Your task to perform on an android device: all mails in gmail Image 0: 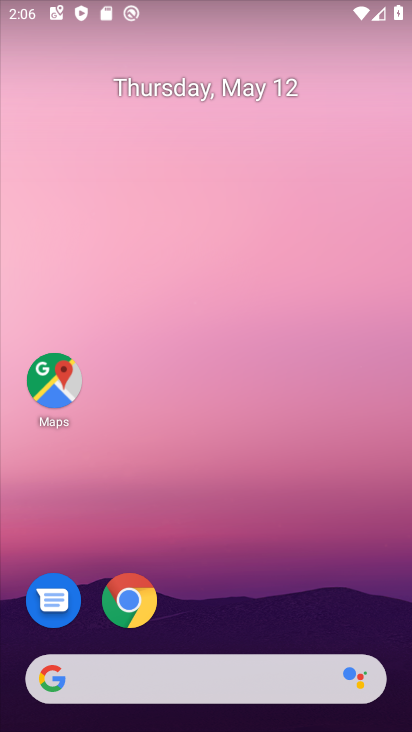
Step 0: drag from (192, 607) to (322, 19)
Your task to perform on an android device: all mails in gmail Image 1: 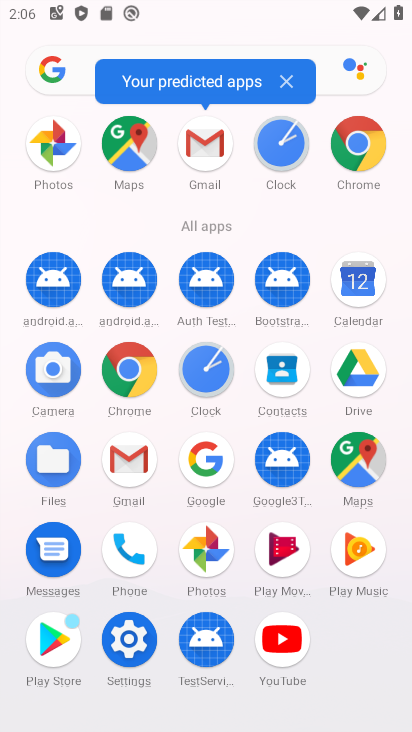
Step 1: click (112, 485)
Your task to perform on an android device: all mails in gmail Image 2: 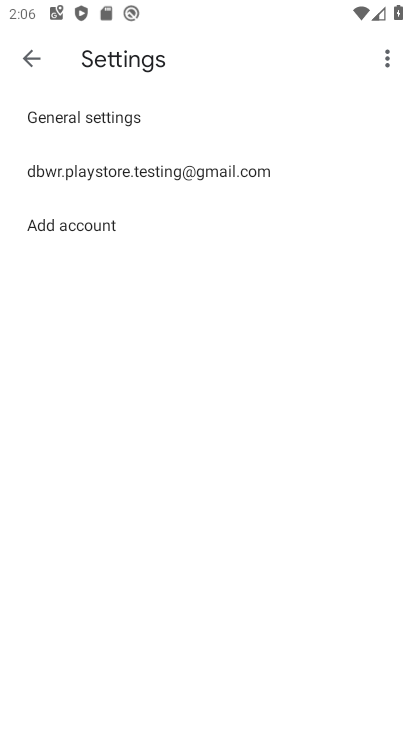
Step 2: click (43, 50)
Your task to perform on an android device: all mails in gmail Image 3: 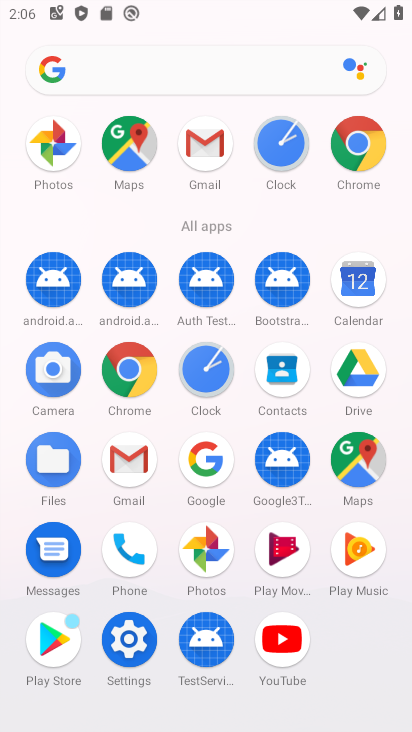
Step 3: click (136, 473)
Your task to perform on an android device: all mails in gmail Image 4: 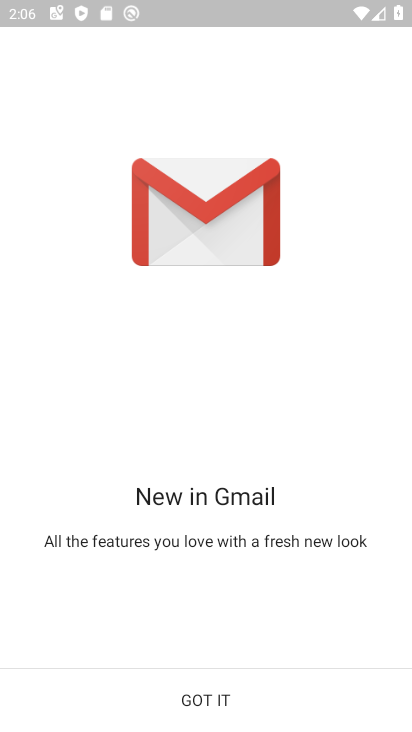
Step 4: click (215, 698)
Your task to perform on an android device: all mails in gmail Image 5: 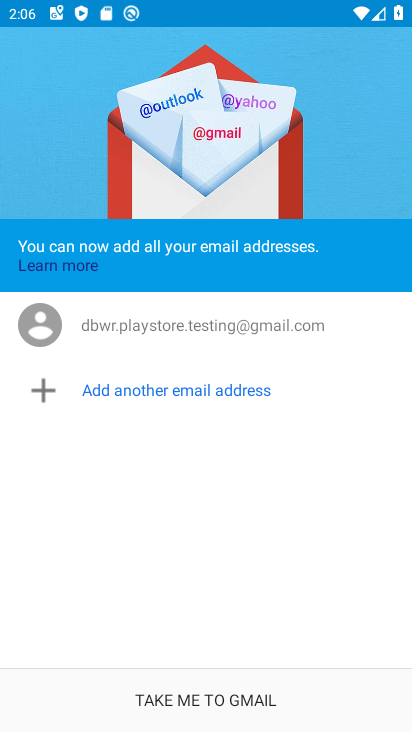
Step 5: click (206, 708)
Your task to perform on an android device: all mails in gmail Image 6: 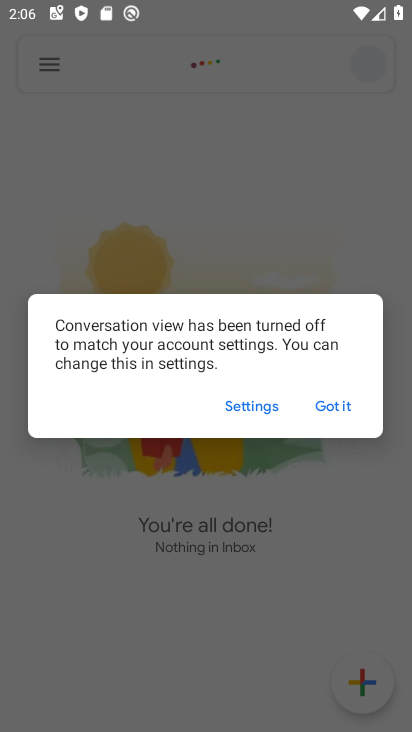
Step 6: click (322, 403)
Your task to perform on an android device: all mails in gmail Image 7: 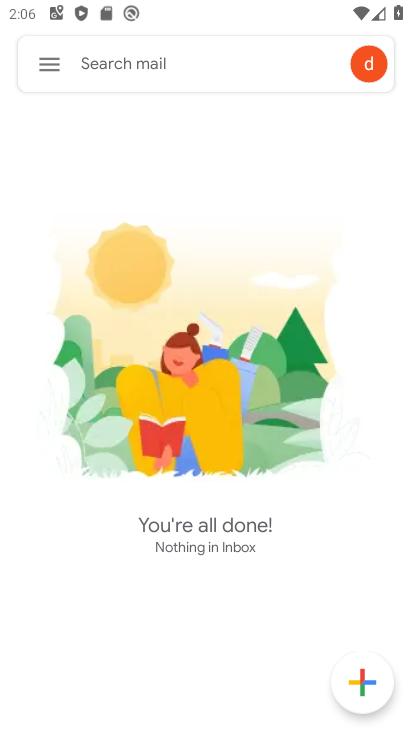
Step 7: click (49, 64)
Your task to perform on an android device: all mails in gmail Image 8: 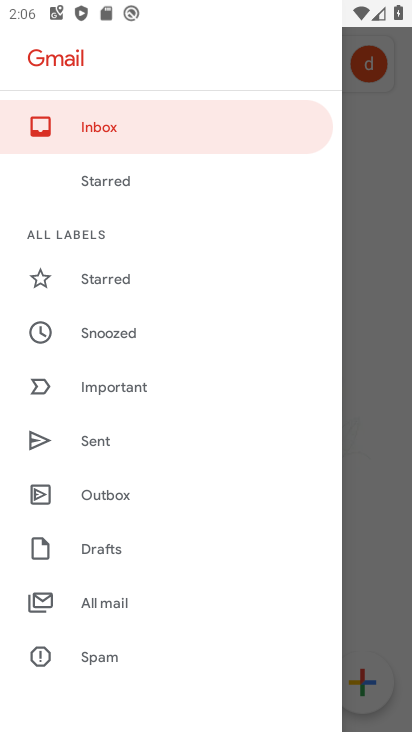
Step 8: click (108, 615)
Your task to perform on an android device: all mails in gmail Image 9: 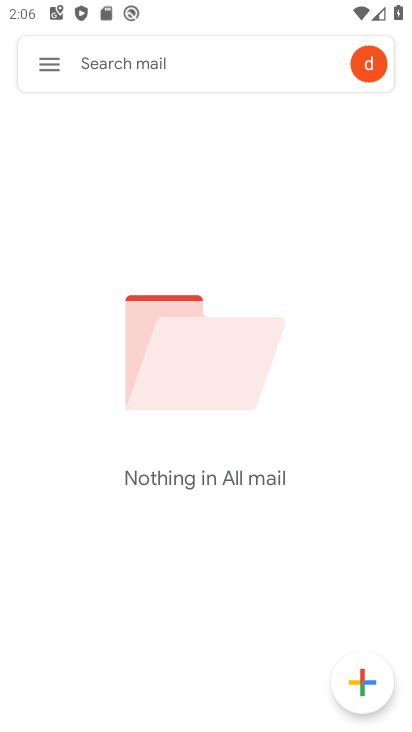
Step 9: task complete